Your task to perform on an android device: find which apps use the phone's location Image 0: 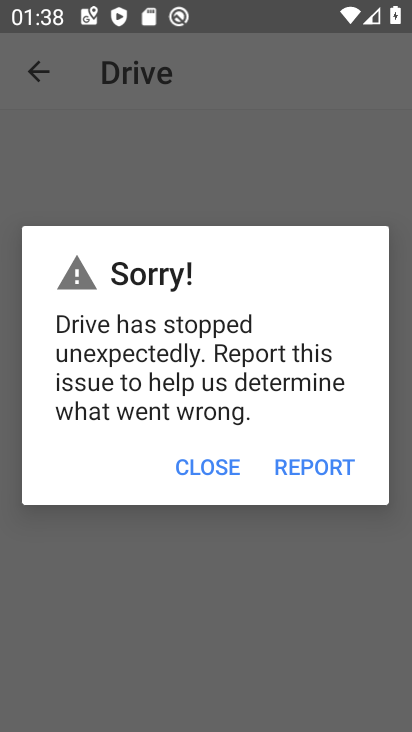
Step 0: press home button
Your task to perform on an android device: find which apps use the phone's location Image 1: 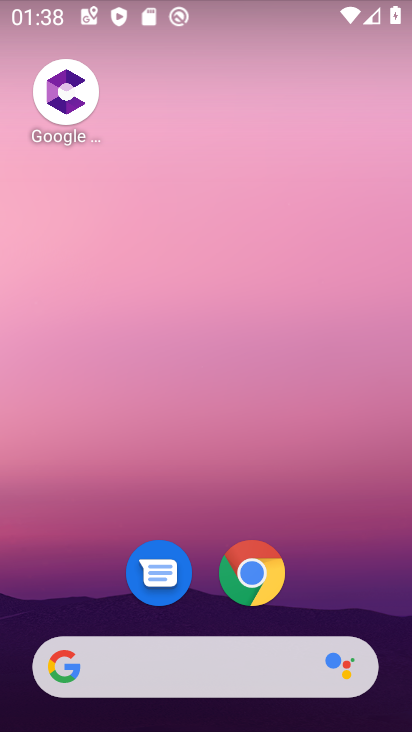
Step 1: drag from (331, 585) to (248, 66)
Your task to perform on an android device: find which apps use the phone's location Image 2: 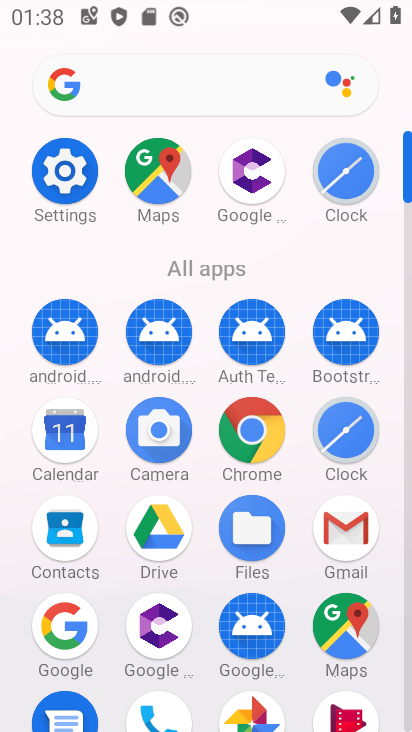
Step 2: click (66, 168)
Your task to perform on an android device: find which apps use the phone's location Image 3: 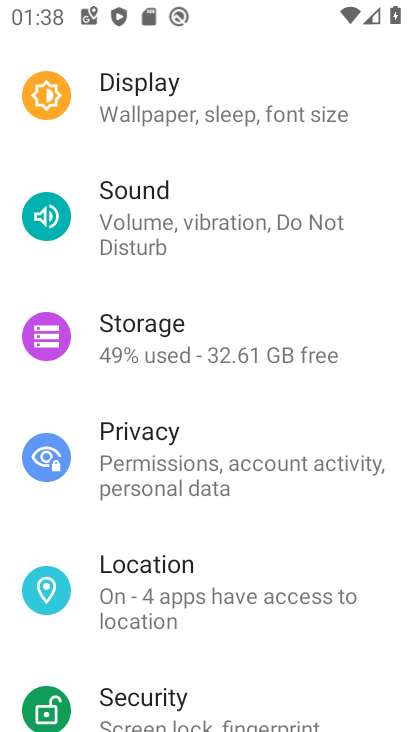
Step 3: drag from (185, 606) to (250, 455)
Your task to perform on an android device: find which apps use the phone's location Image 4: 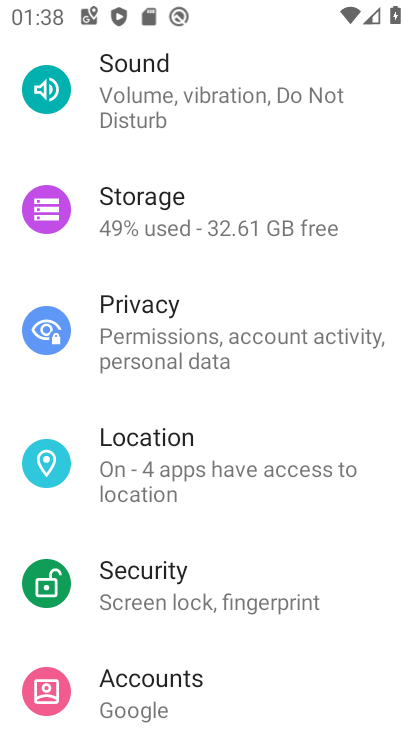
Step 4: click (235, 455)
Your task to perform on an android device: find which apps use the phone's location Image 5: 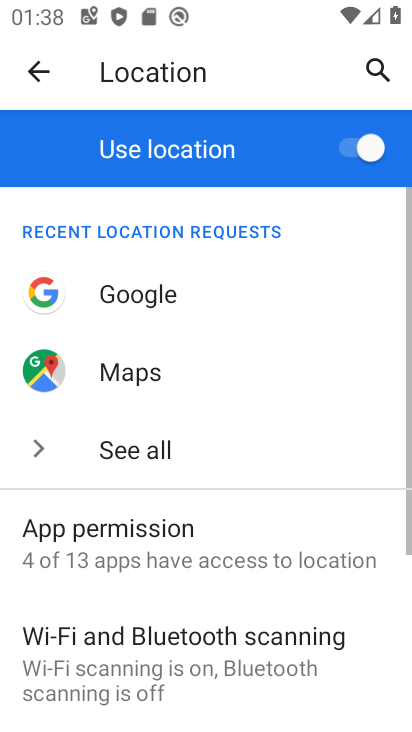
Step 5: drag from (234, 496) to (262, 385)
Your task to perform on an android device: find which apps use the phone's location Image 6: 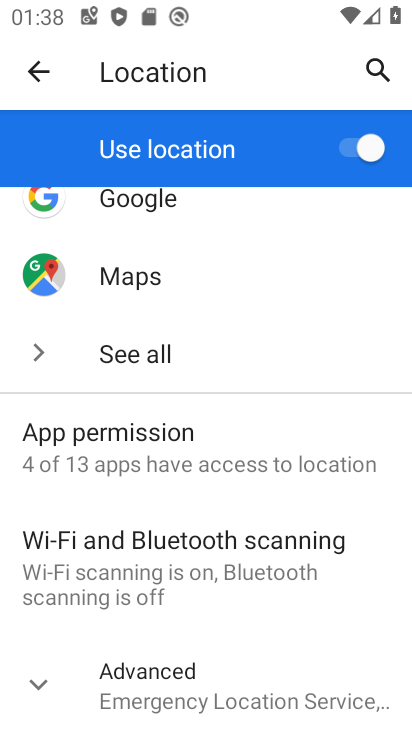
Step 6: click (180, 440)
Your task to perform on an android device: find which apps use the phone's location Image 7: 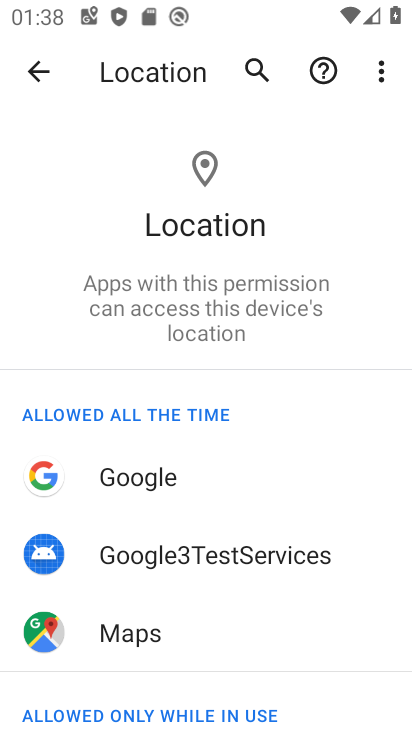
Step 7: click (137, 629)
Your task to perform on an android device: find which apps use the phone's location Image 8: 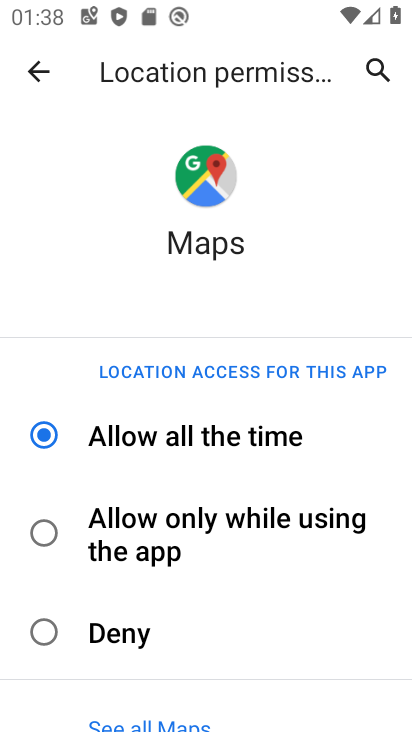
Step 8: task complete